Your task to perform on an android device: open wifi settings Image 0: 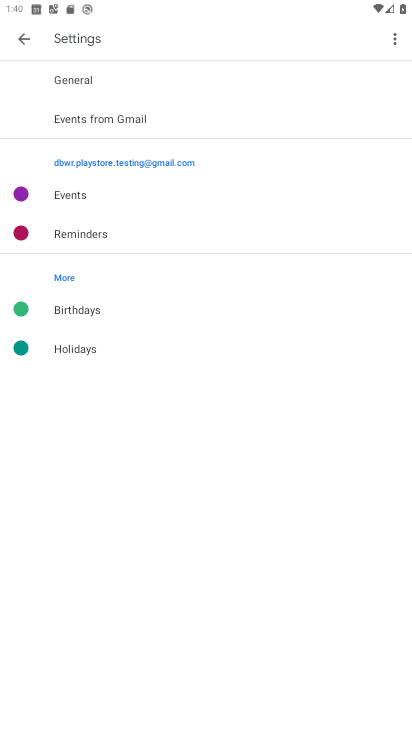
Step 0: press home button
Your task to perform on an android device: open wifi settings Image 1: 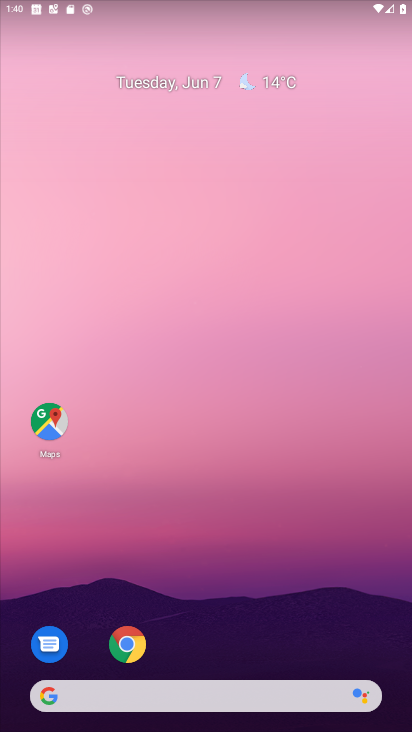
Step 1: drag from (254, 585) to (267, 38)
Your task to perform on an android device: open wifi settings Image 2: 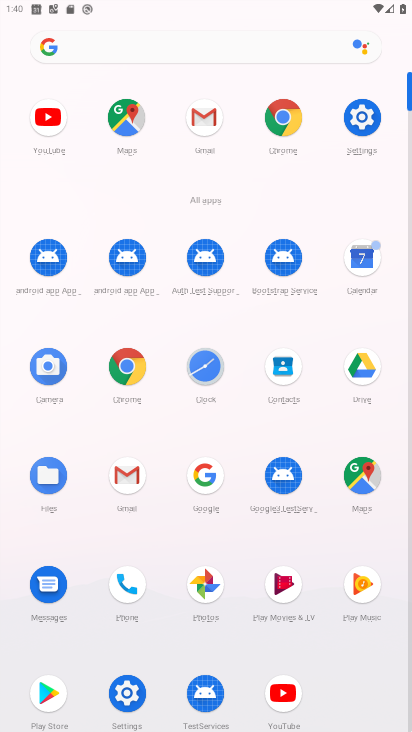
Step 2: click (358, 123)
Your task to perform on an android device: open wifi settings Image 3: 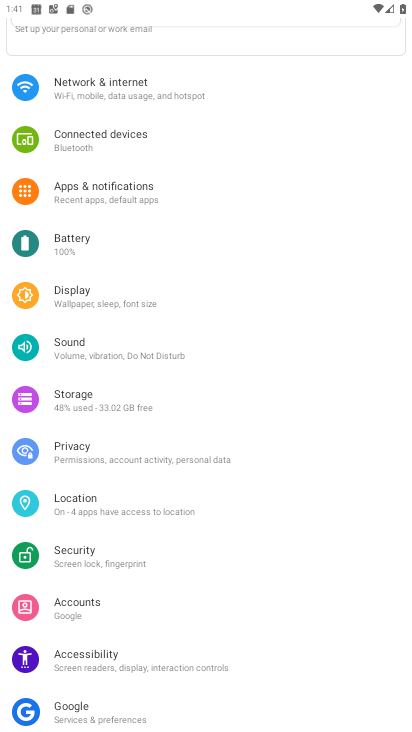
Step 3: click (203, 89)
Your task to perform on an android device: open wifi settings Image 4: 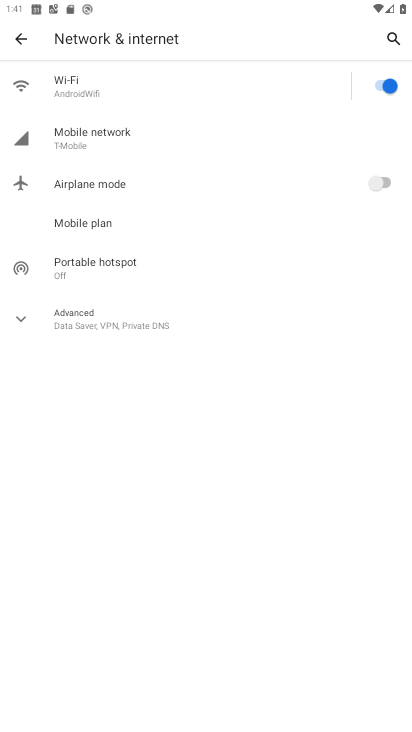
Step 4: click (185, 94)
Your task to perform on an android device: open wifi settings Image 5: 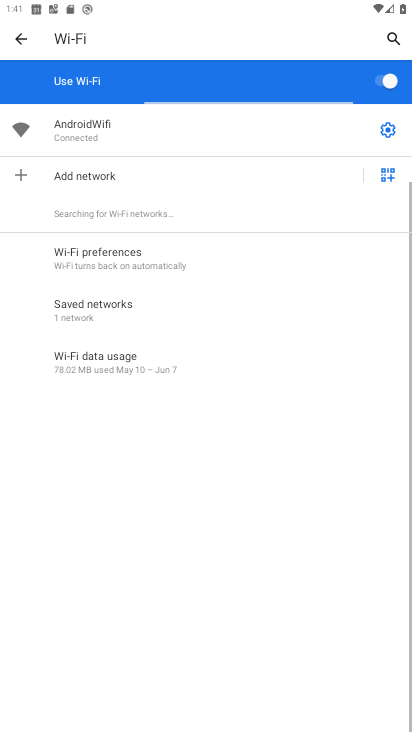
Step 5: task complete